Your task to perform on an android device: check battery use Image 0: 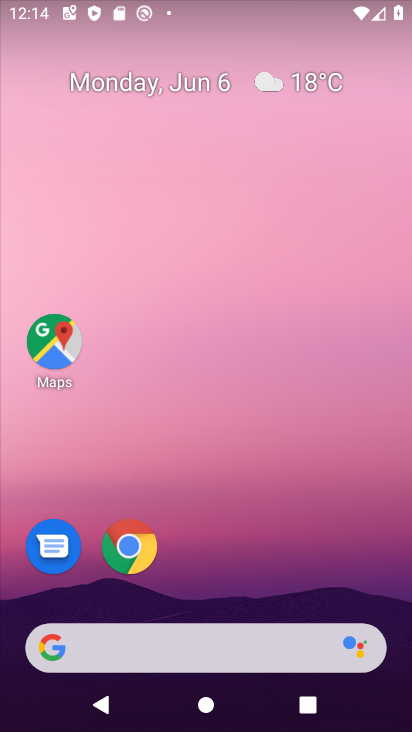
Step 0: press home button
Your task to perform on an android device: check battery use Image 1: 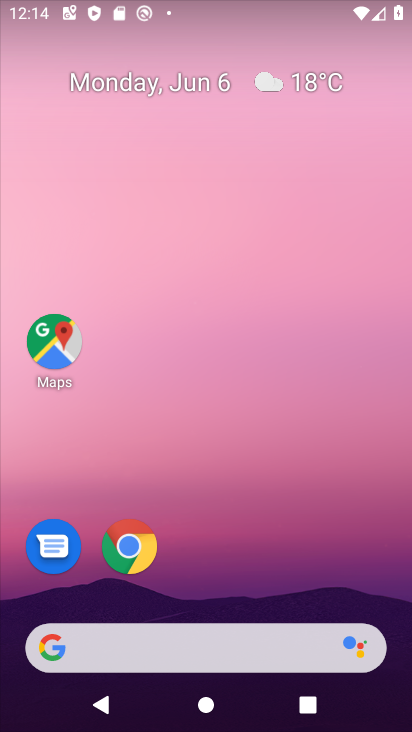
Step 1: drag from (347, 552) to (360, 177)
Your task to perform on an android device: check battery use Image 2: 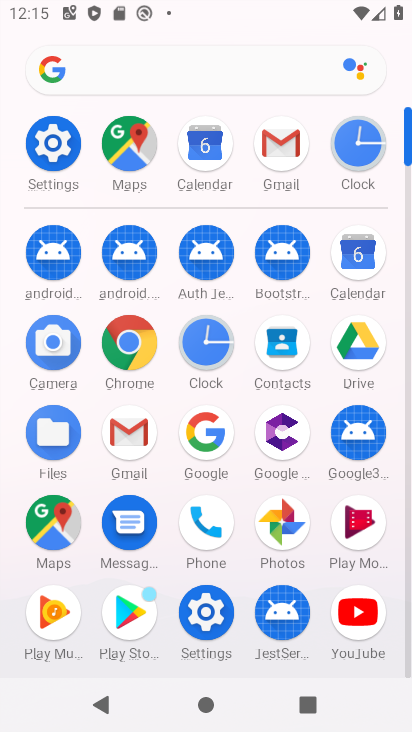
Step 2: click (58, 143)
Your task to perform on an android device: check battery use Image 3: 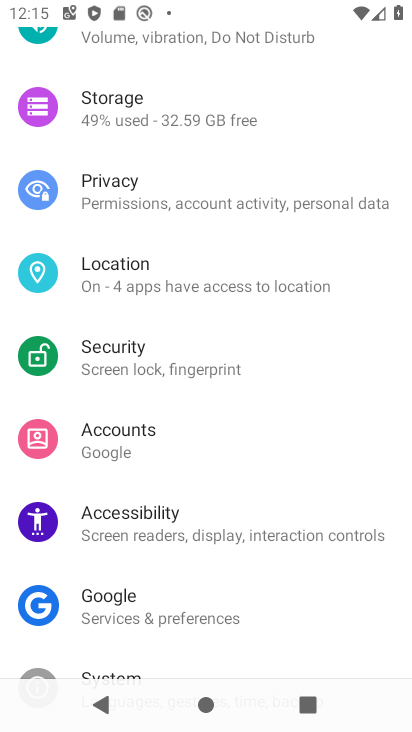
Step 3: drag from (314, 489) to (276, 652)
Your task to perform on an android device: check battery use Image 4: 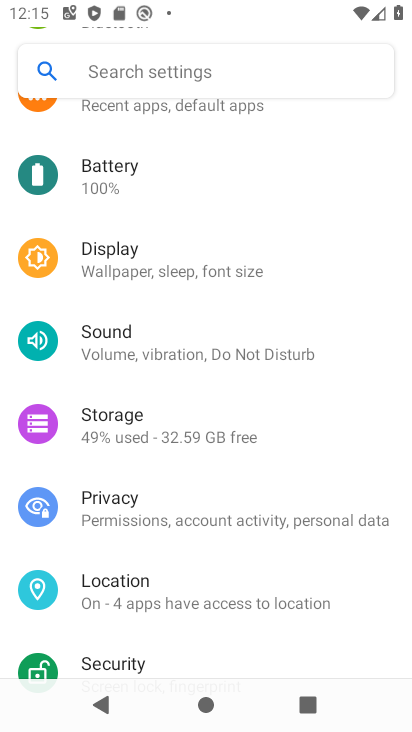
Step 4: click (176, 190)
Your task to perform on an android device: check battery use Image 5: 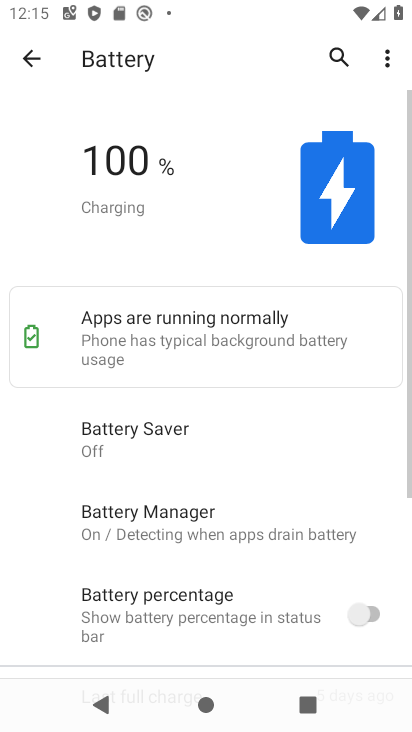
Step 5: click (385, 57)
Your task to perform on an android device: check battery use Image 6: 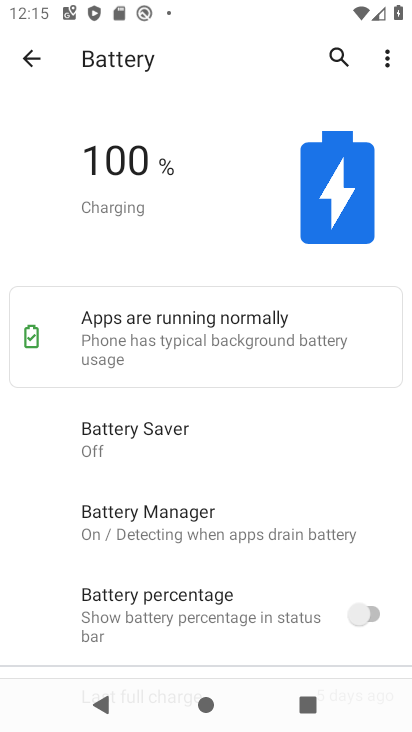
Step 6: click (372, 42)
Your task to perform on an android device: check battery use Image 7: 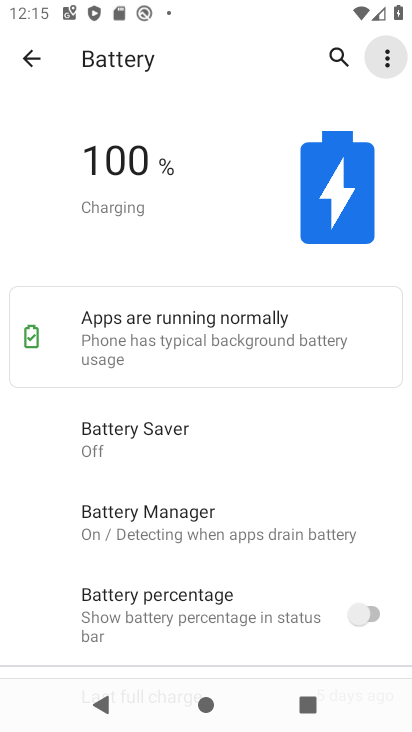
Step 7: click (385, 49)
Your task to perform on an android device: check battery use Image 8: 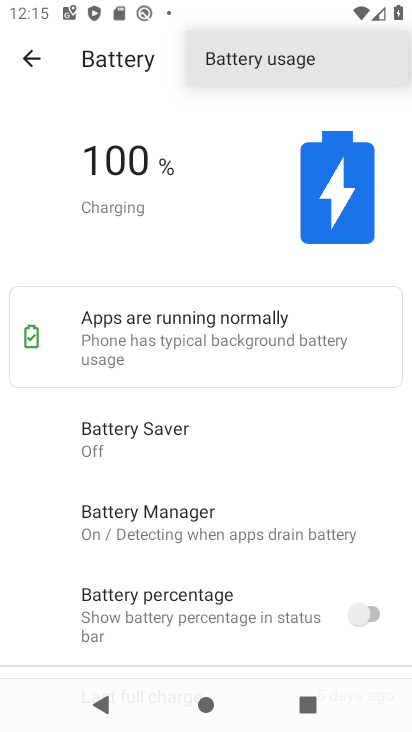
Step 8: click (381, 58)
Your task to perform on an android device: check battery use Image 9: 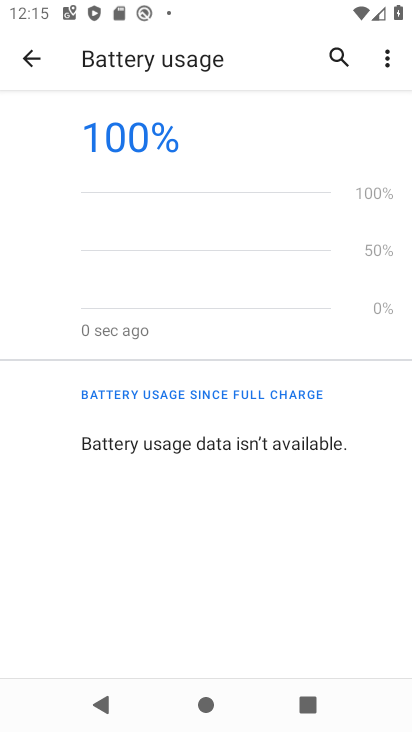
Step 9: task complete